Your task to perform on an android device: open app "Lyft - Rideshare, Bikes, Scooters & Transit" (install if not already installed), go to login, and select forgot password Image 0: 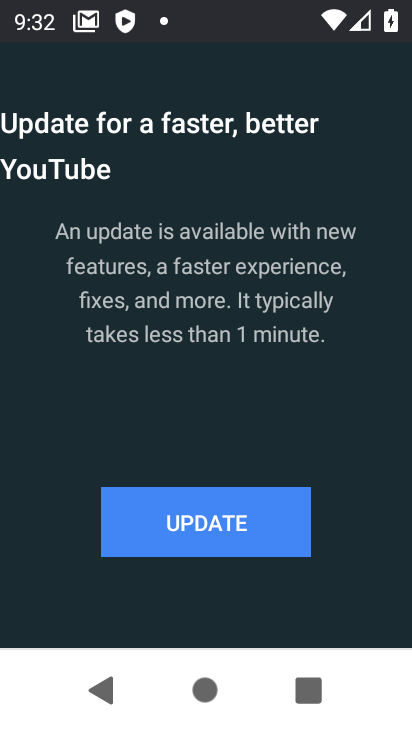
Step 0: press back button
Your task to perform on an android device: open app "Lyft - Rideshare, Bikes, Scooters & Transit" (install if not already installed), go to login, and select forgot password Image 1: 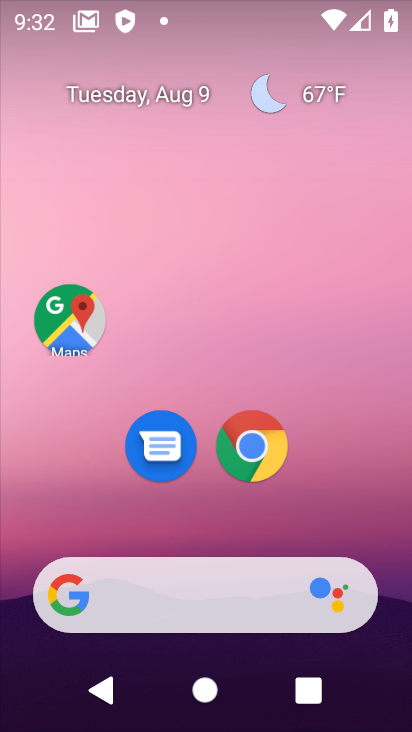
Step 1: drag from (249, 483) to (307, 1)
Your task to perform on an android device: open app "Lyft - Rideshare, Bikes, Scooters & Transit" (install if not already installed), go to login, and select forgot password Image 2: 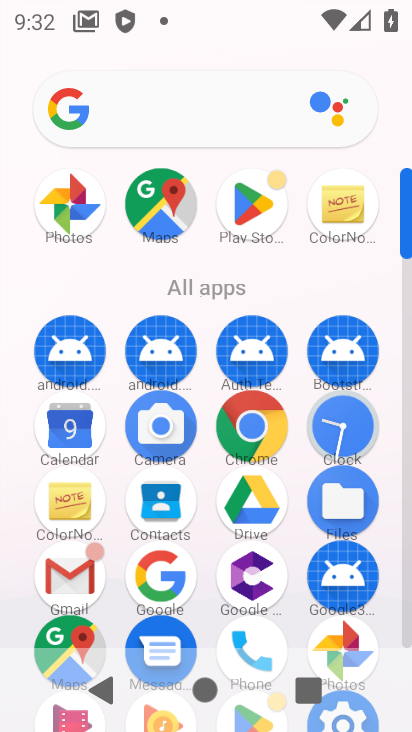
Step 2: click (252, 201)
Your task to perform on an android device: open app "Lyft - Rideshare, Bikes, Scooters & Transit" (install if not already installed), go to login, and select forgot password Image 3: 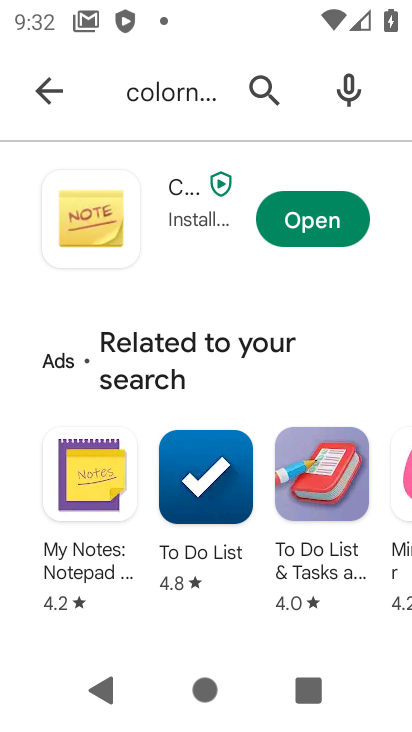
Step 3: click (261, 83)
Your task to perform on an android device: open app "Lyft - Rideshare, Bikes, Scooters & Transit" (install if not already installed), go to login, and select forgot password Image 4: 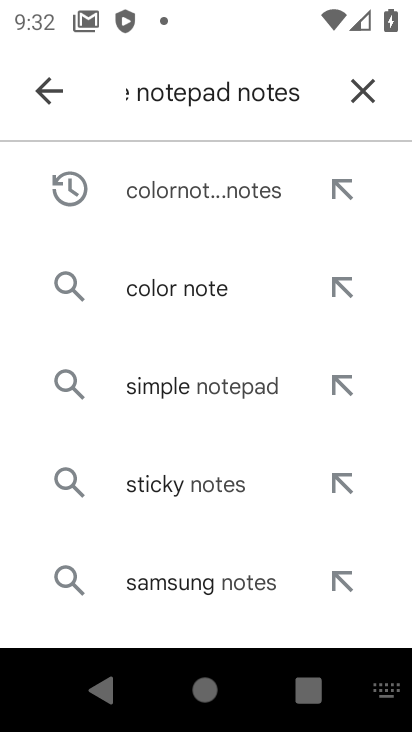
Step 4: click (381, 84)
Your task to perform on an android device: open app "Lyft - Rideshare, Bikes, Scooters & Transit" (install if not already installed), go to login, and select forgot password Image 5: 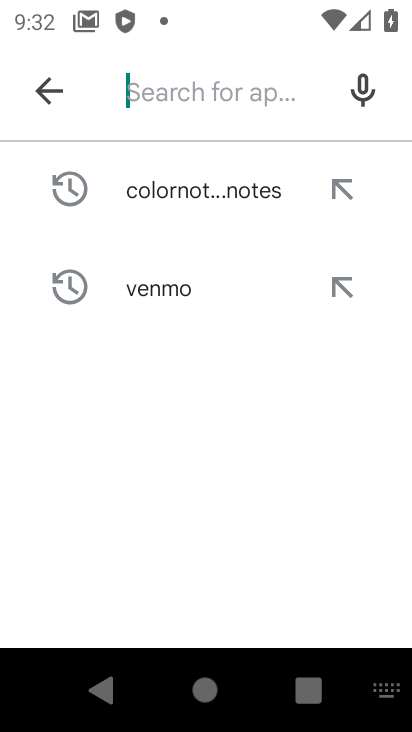
Step 5: click (226, 102)
Your task to perform on an android device: open app "Lyft - Rideshare, Bikes, Scooters & Transit" (install if not already installed), go to login, and select forgot password Image 6: 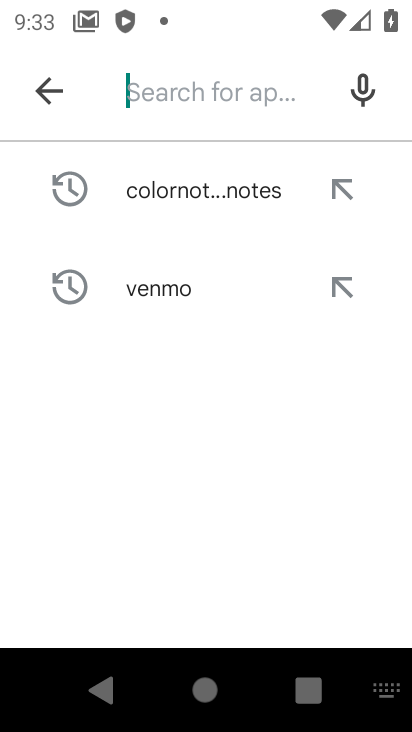
Step 6: type "lyft"
Your task to perform on an android device: open app "Lyft - Rideshare, Bikes, Scooters & Transit" (install if not already installed), go to login, and select forgot password Image 7: 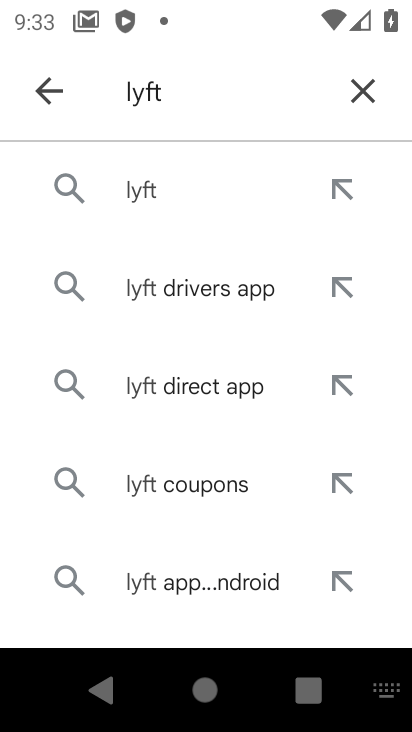
Step 7: click (139, 181)
Your task to perform on an android device: open app "Lyft - Rideshare, Bikes, Scooters & Transit" (install if not already installed), go to login, and select forgot password Image 8: 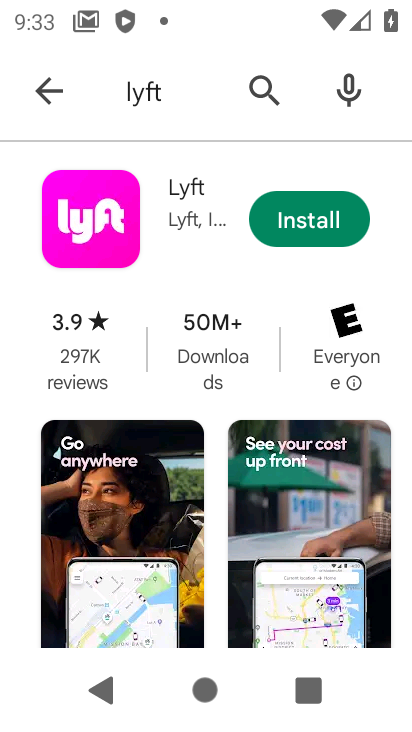
Step 8: click (275, 224)
Your task to perform on an android device: open app "Lyft - Rideshare, Bikes, Scooters & Transit" (install if not already installed), go to login, and select forgot password Image 9: 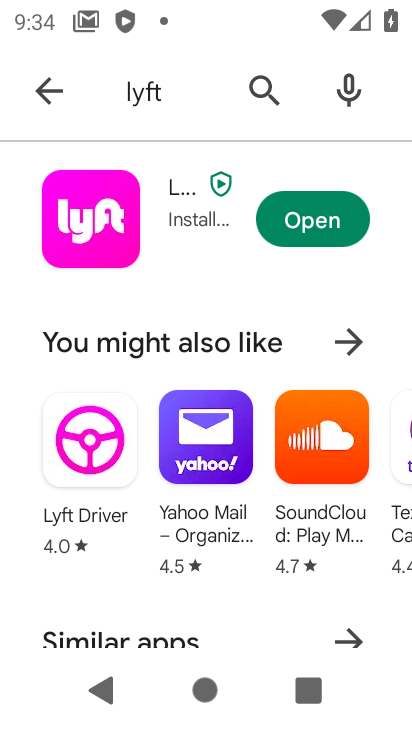
Step 9: click (311, 213)
Your task to perform on an android device: open app "Lyft - Rideshare, Bikes, Scooters & Transit" (install if not already installed), go to login, and select forgot password Image 10: 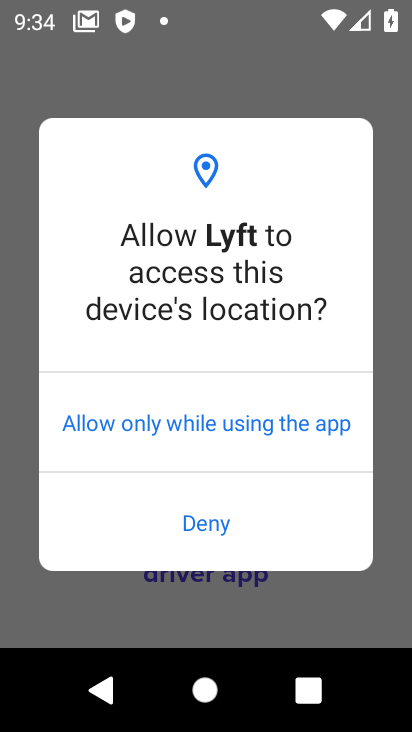
Step 10: click (194, 518)
Your task to perform on an android device: open app "Lyft - Rideshare, Bikes, Scooters & Transit" (install if not already installed), go to login, and select forgot password Image 11: 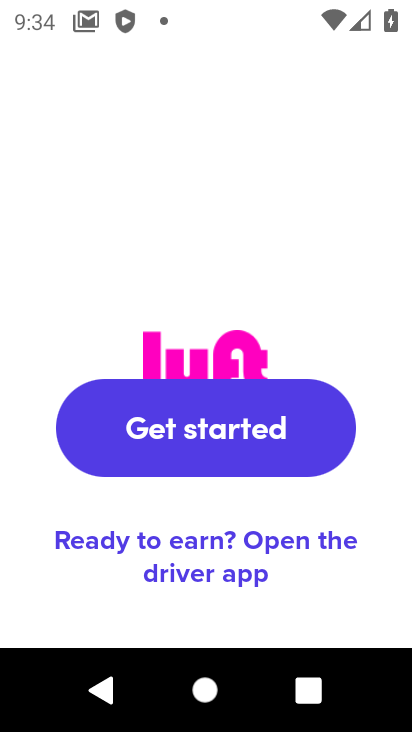
Step 11: click (200, 442)
Your task to perform on an android device: open app "Lyft - Rideshare, Bikes, Scooters & Transit" (install if not already installed), go to login, and select forgot password Image 12: 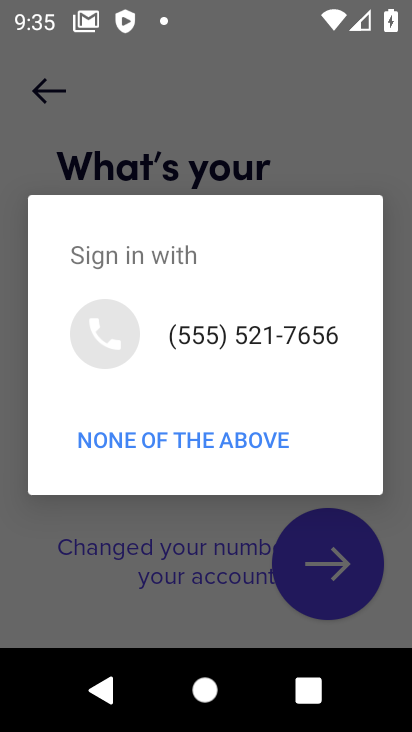
Step 12: click (151, 454)
Your task to perform on an android device: open app "Lyft - Rideshare, Bikes, Scooters & Transit" (install if not already installed), go to login, and select forgot password Image 13: 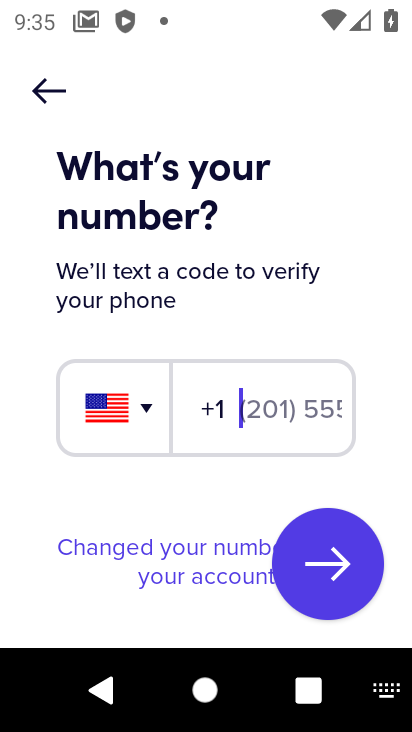
Step 13: drag from (143, 510) to (202, 101)
Your task to perform on an android device: open app "Lyft - Rideshare, Bikes, Scooters & Transit" (install if not already installed), go to login, and select forgot password Image 14: 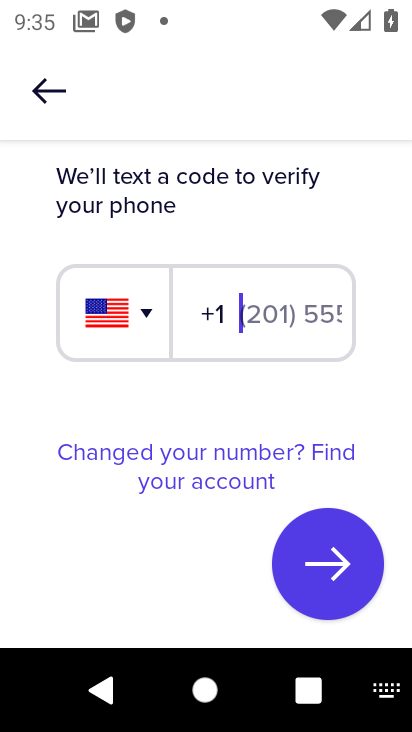
Step 14: click (175, 484)
Your task to perform on an android device: open app "Lyft - Rideshare, Bikes, Scooters & Transit" (install if not already installed), go to login, and select forgot password Image 15: 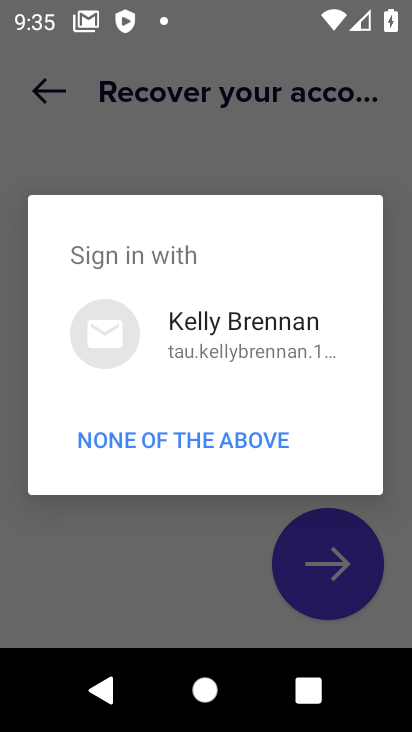
Step 15: click (193, 354)
Your task to perform on an android device: open app "Lyft - Rideshare, Bikes, Scooters & Transit" (install if not already installed), go to login, and select forgot password Image 16: 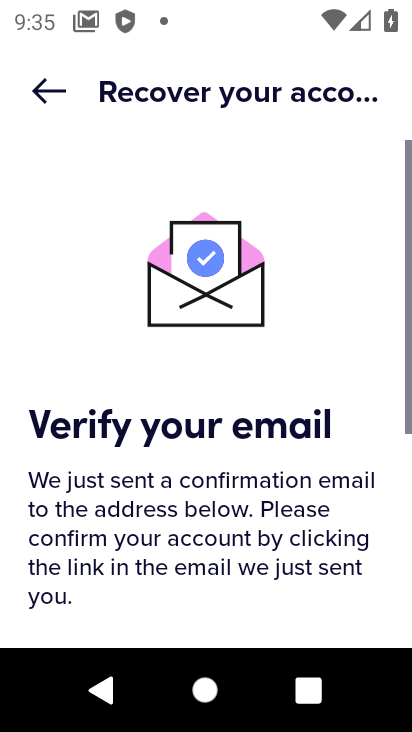
Step 16: drag from (200, 538) to (254, 9)
Your task to perform on an android device: open app "Lyft - Rideshare, Bikes, Scooters & Transit" (install if not already installed), go to login, and select forgot password Image 17: 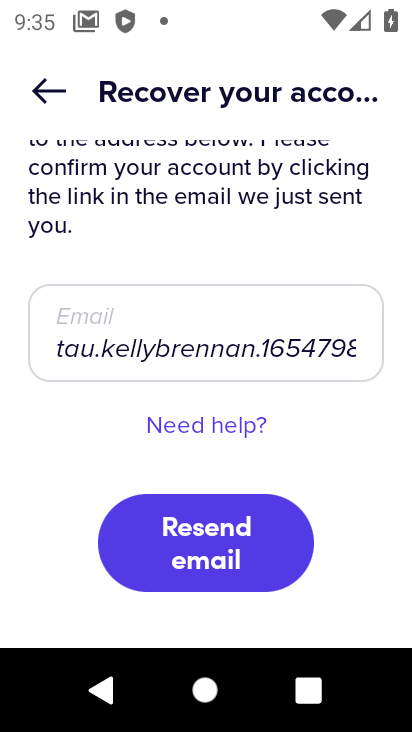
Step 17: drag from (217, 400) to (265, 100)
Your task to perform on an android device: open app "Lyft - Rideshare, Bikes, Scooters & Transit" (install if not already installed), go to login, and select forgot password Image 18: 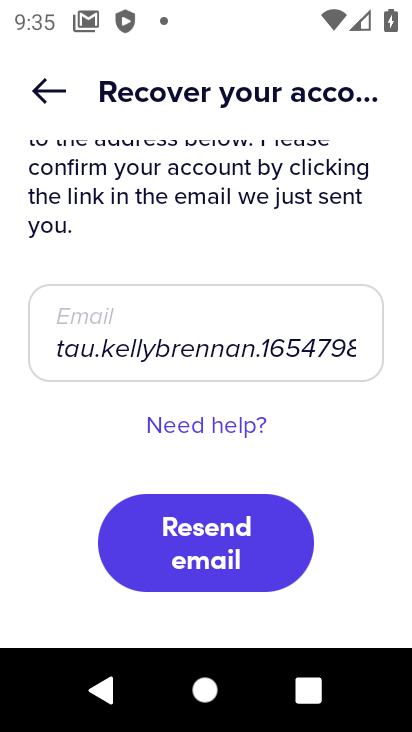
Step 18: press back button
Your task to perform on an android device: open app "Lyft - Rideshare, Bikes, Scooters & Transit" (install if not already installed), go to login, and select forgot password Image 19: 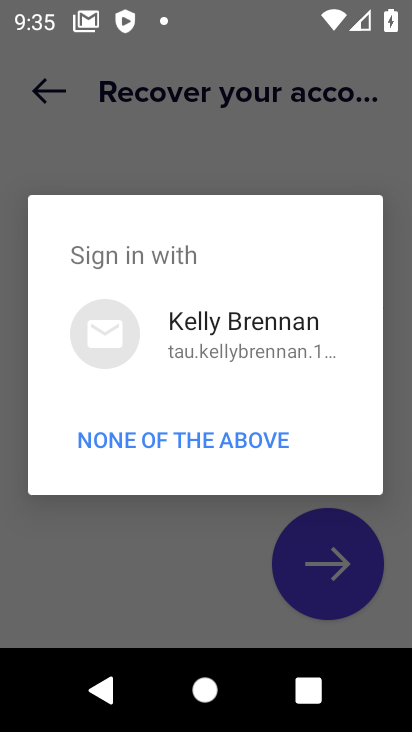
Step 19: click (222, 131)
Your task to perform on an android device: open app "Lyft - Rideshare, Bikes, Scooters & Transit" (install if not already installed), go to login, and select forgot password Image 20: 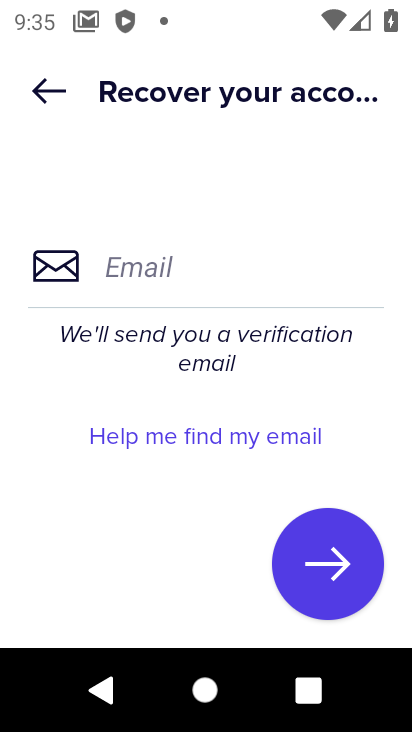
Step 20: task complete